Your task to perform on an android device: Open CNN.com Image 0: 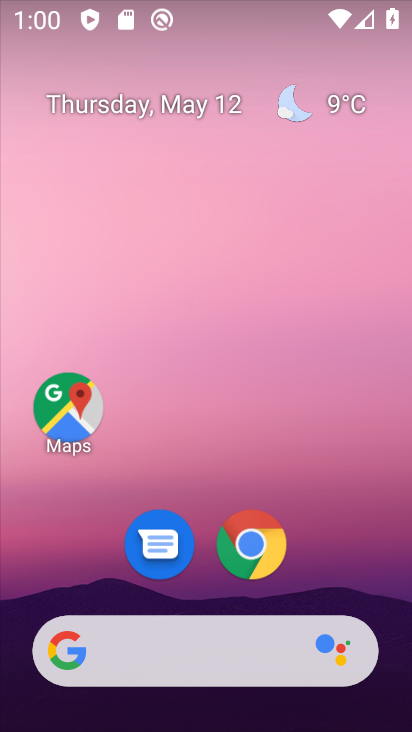
Step 0: drag from (315, 507) to (236, 10)
Your task to perform on an android device: Open CNN.com Image 1: 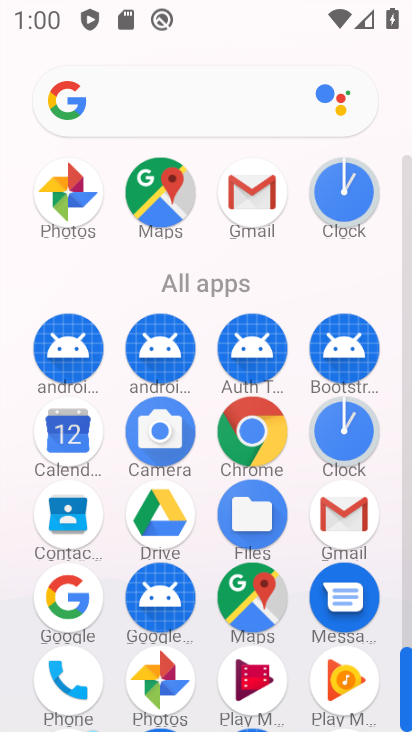
Step 1: drag from (12, 552) to (8, 201)
Your task to perform on an android device: Open CNN.com Image 2: 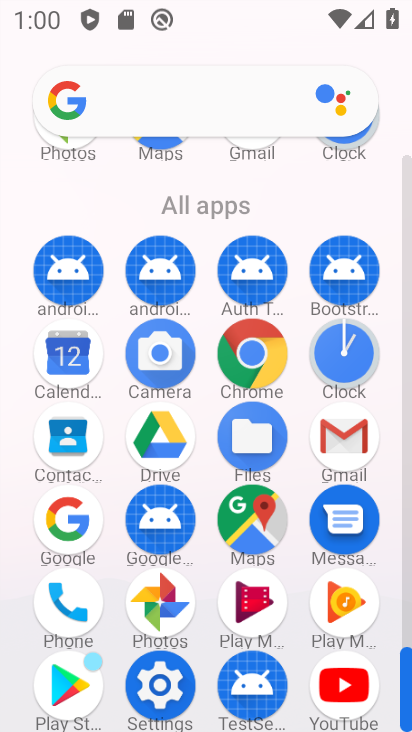
Step 2: click (249, 342)
Your task to perform on an android device: Open CNN.com Image 3: 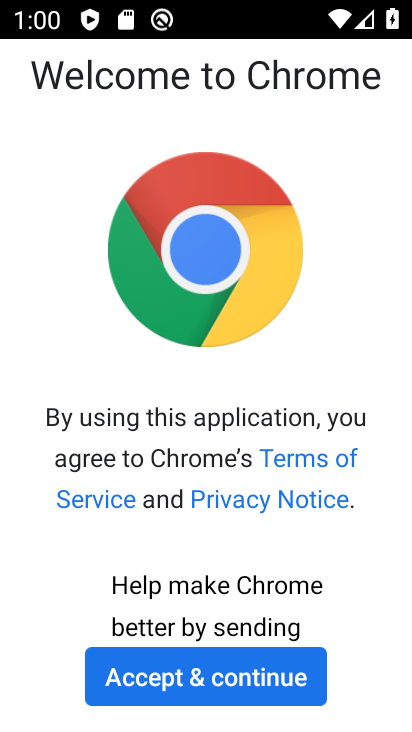
Step 3: click (195, 693)
Your task to perform on an android device: Open CNN.com Image 4: 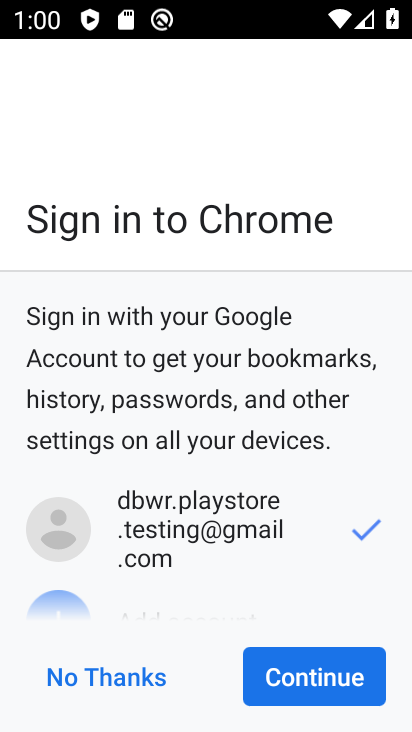
Step 4: click (320, 671)
Your task to perform on an android device: Open CNN.com Image 5: 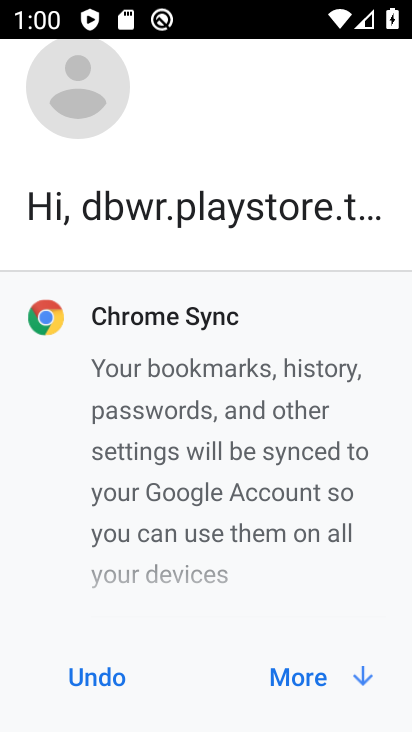
Step 5: click (323, 663)
Your task to perform on an android device: Open CNN.com Image 6: 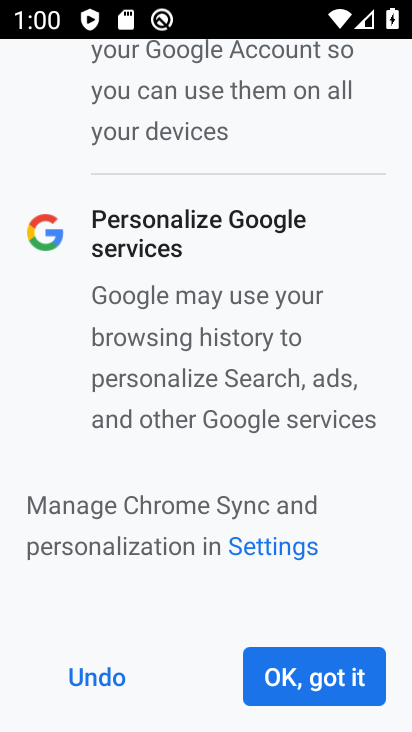
Step 6: click (309, 693)
Your task to perform on an android device: Open CNN.com Image 7: 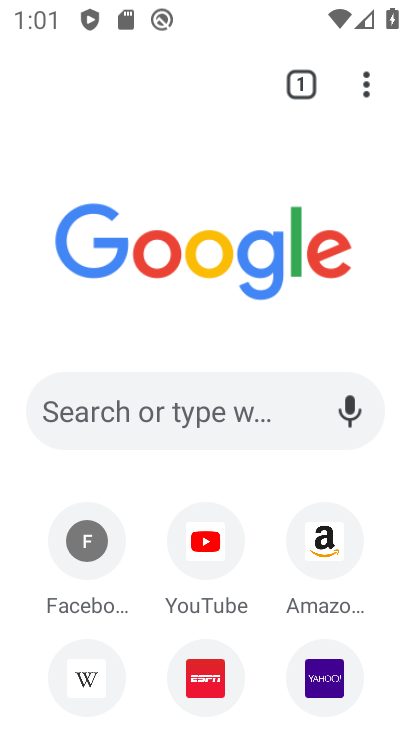
Step 7: click (173, 393)
Your task to perform on an android device: Open CNN.com Image 8: 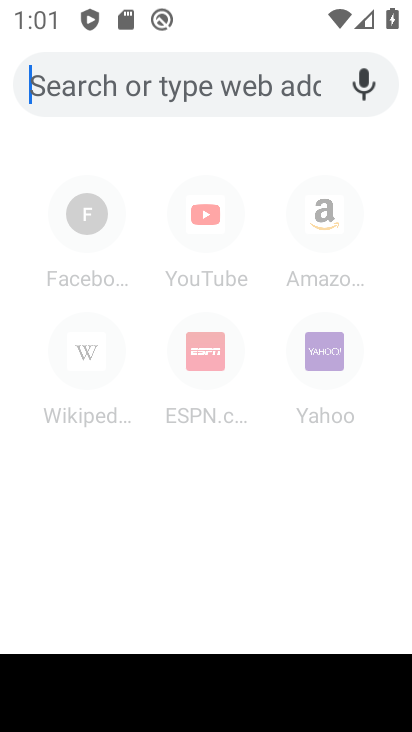
Step 8: type "CNN.com"
Your task to perform on an android device: Open CNN.com Image 9: 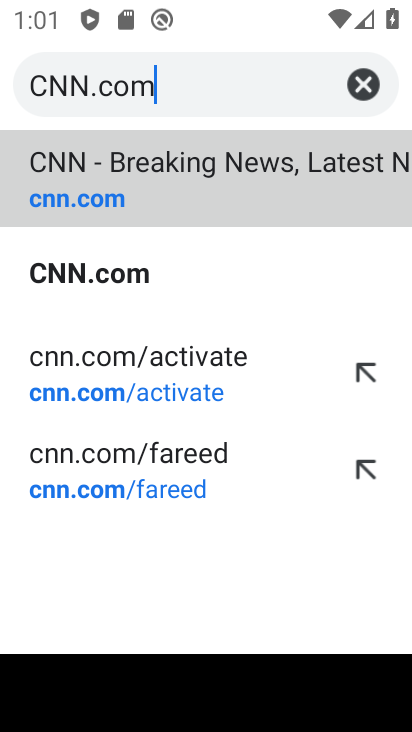
Step 9: type ""
Your task to perform on an android device: Open CNN.com Image 10: 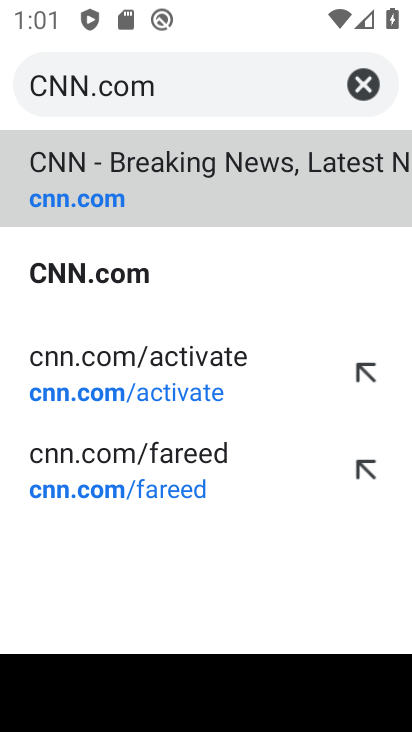
Step 10: click (119, 168)
Your task to perform on an android device: Open CNN.com Image 11: 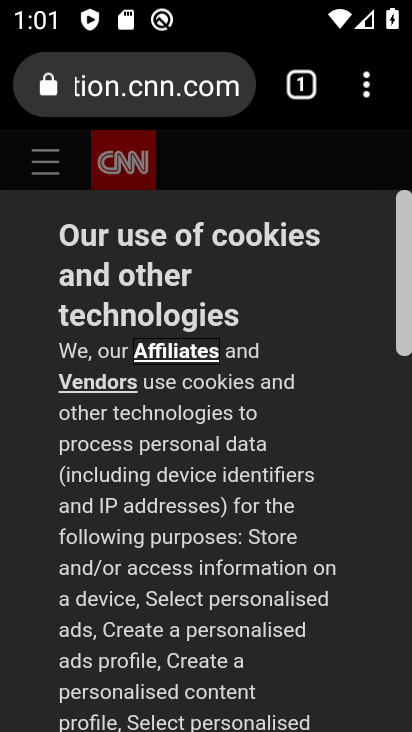
Step 11: task complete